Your task to perform on an android device: What's on my calendar today? Image 0: 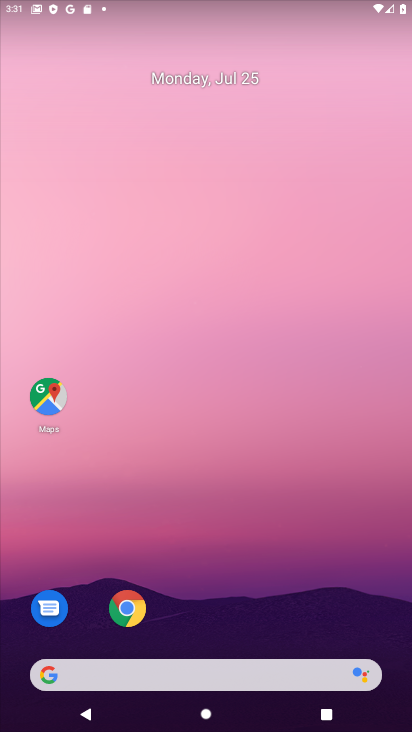
Step 0: click (248, 2)
Your task to perform on an android device: What's on my calendar today? Image 1: 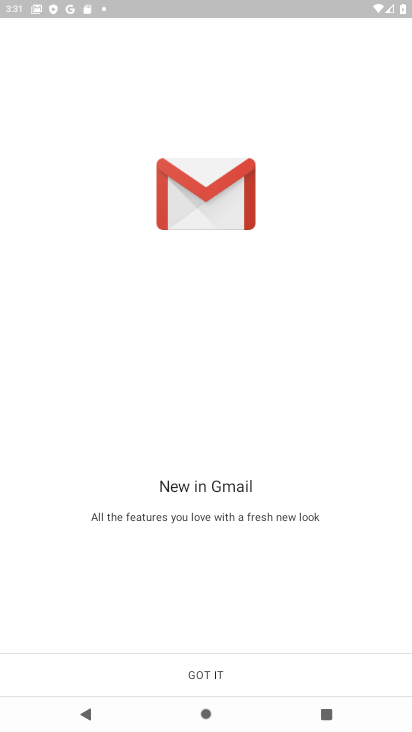
Step 1: click (206, 665)
Your task to perform on an android device: What's on my calendar today? Image 2: 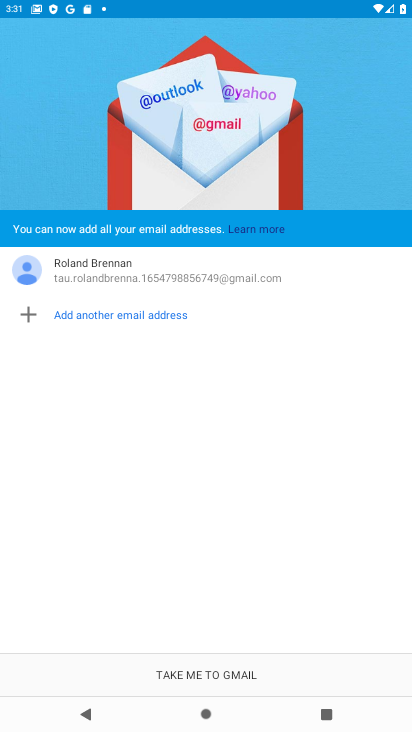
Step 2: click (200, 674)
Your task to perform on an android device: What's on my calendar today? Image 3: 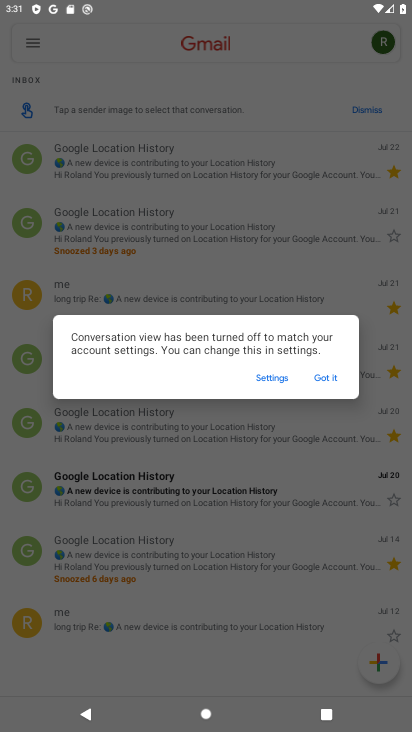
Step 3: click (321, 380)
Your task to perform on an android device: What's on my calendar today? Image 4: 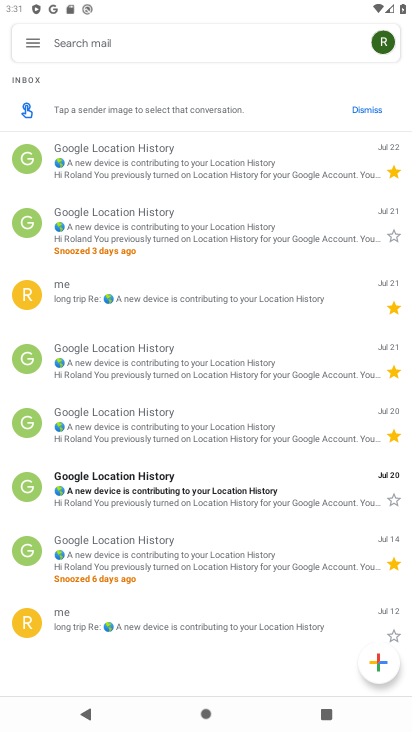
Step 4: press home button
Your task to perform on an android device: What's on my calendar today? Image 5: 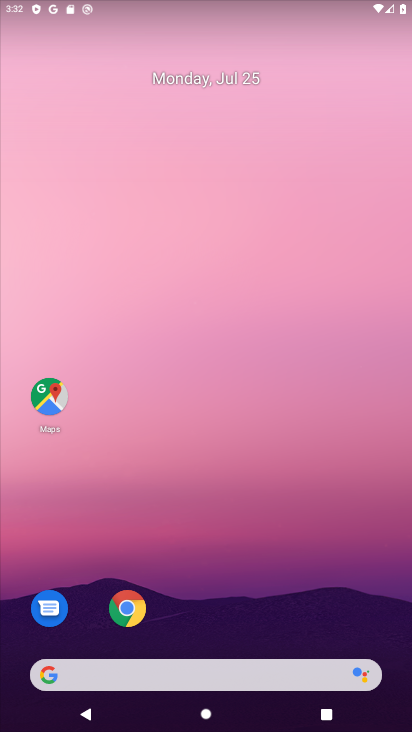
Step 5: drag from (218, 637) to (260, 40)
Your task to perform on an android device: What's on my calendar today? Image 6: 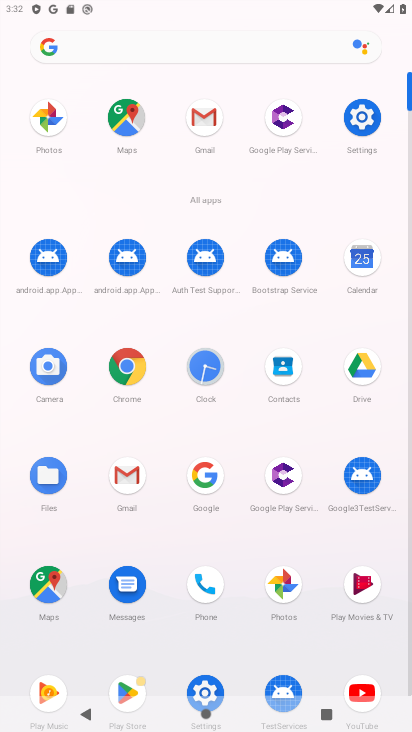
Step 6: click (360, 252)
Your task to perform on an android device: What's on my calendar today? Image 7: 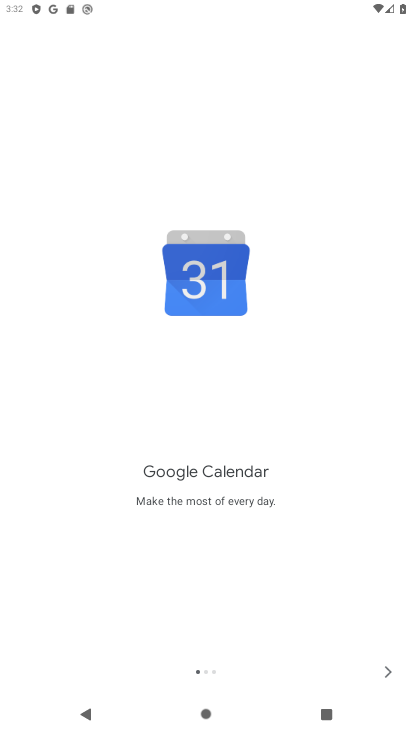
Step 7: click (383, 667)
Your task to perform on an android device: What's on my calendar today? Image 8: 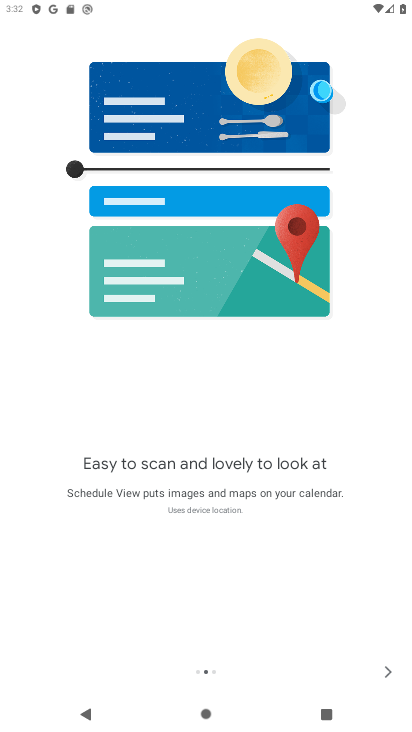
Step 8: click (380, 668)
Your task to perform on an android device: What's on my calendar today? Image 9: 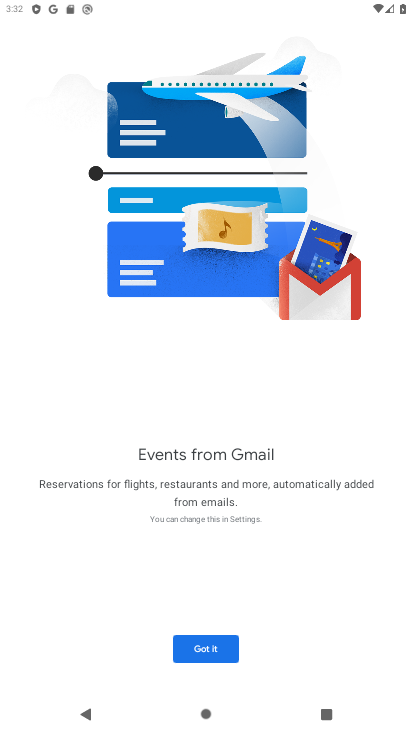
Step 9: click (201, 650)
Your task to perform on an android device: What's on my calendar today? Image 10: 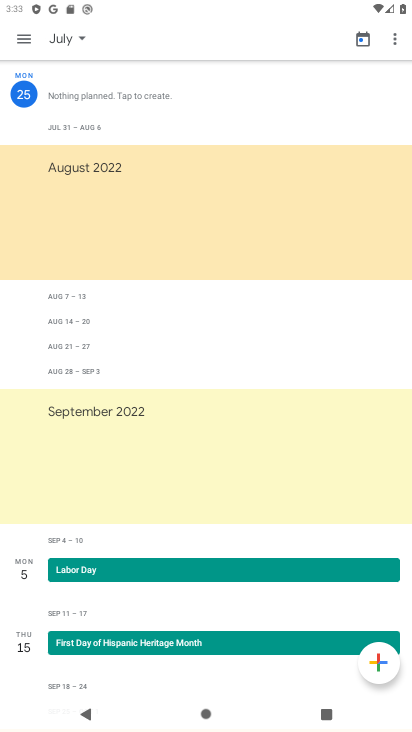
Step 10: click (21, 36)
Your task to perform on an android device: What's on my calendar today? Image 11: 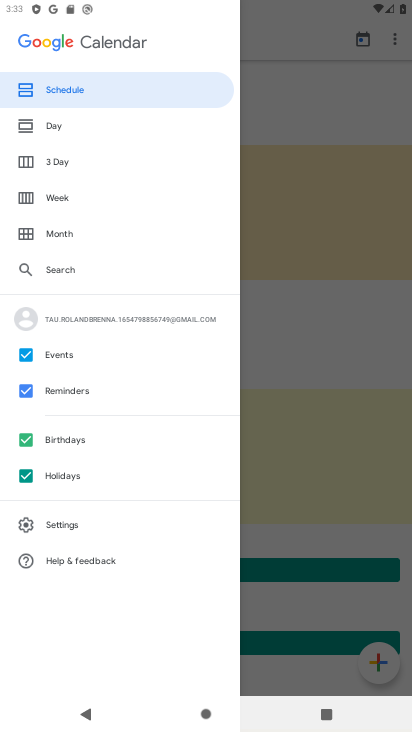
Step 11: click (53, 125)
Your task to perform on an android device: What's on my calendar today? Image 12: 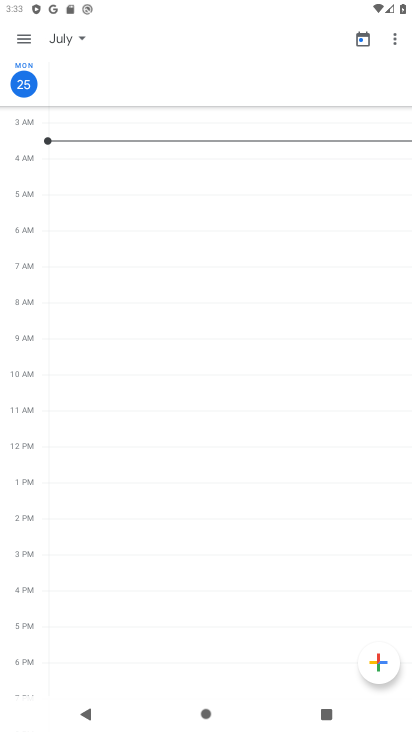
Step 12: task complete